Your task to perform on an android device: add a label to a message in the gmail app Image 0: 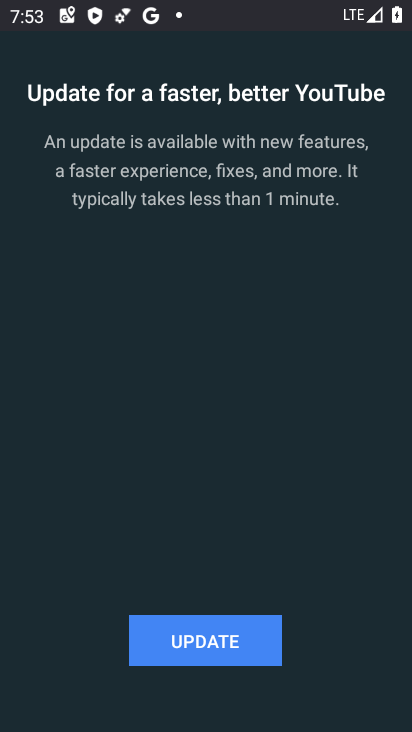
Step 0: press home button
Your task to perform on an android device: add a label to a message in the gmail app Image 1: 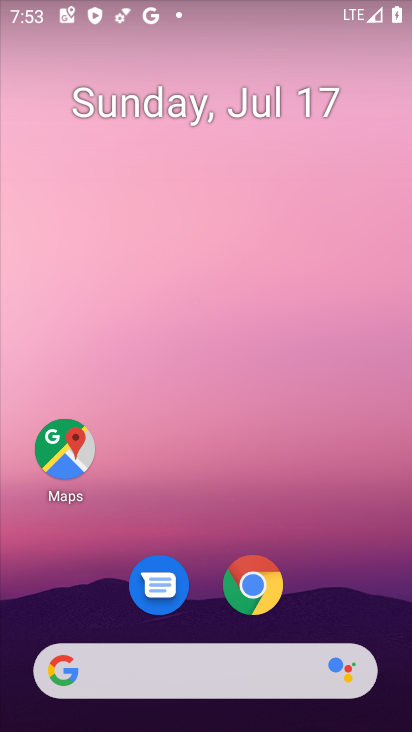
Step 1: drag from (323, 588) to (198, 40)
Your task to perform on an android device: add a label to a message in the gmail app Image 2: 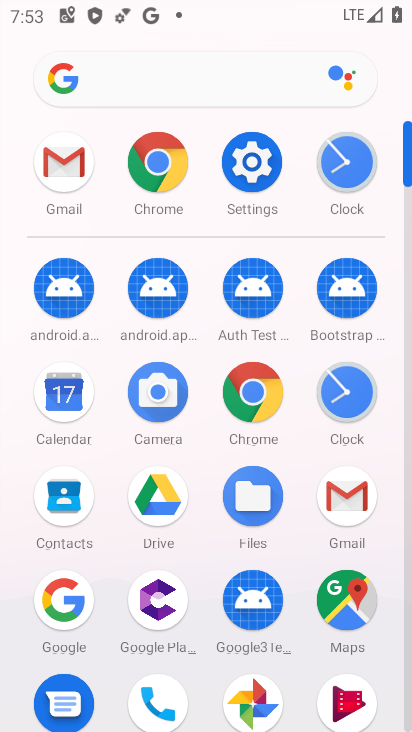
Step 2: click (76, 158)
Your task to perform on an android device: add a label to a message in the gmail app Image 3: 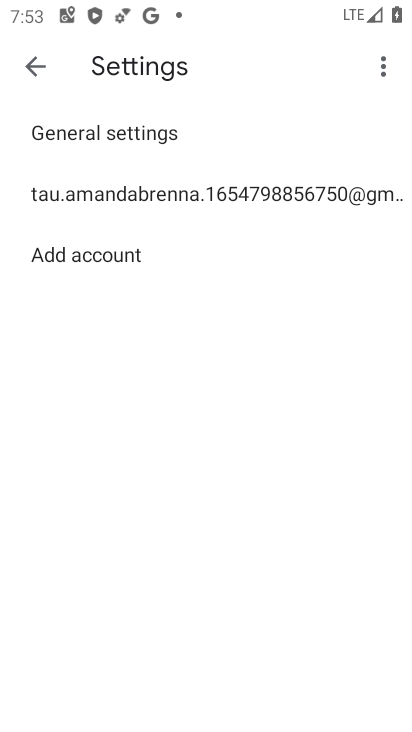
Step 3: click (37, 57)
Your task to perform on an android device: add a label to a message in the gmail app Image 4: 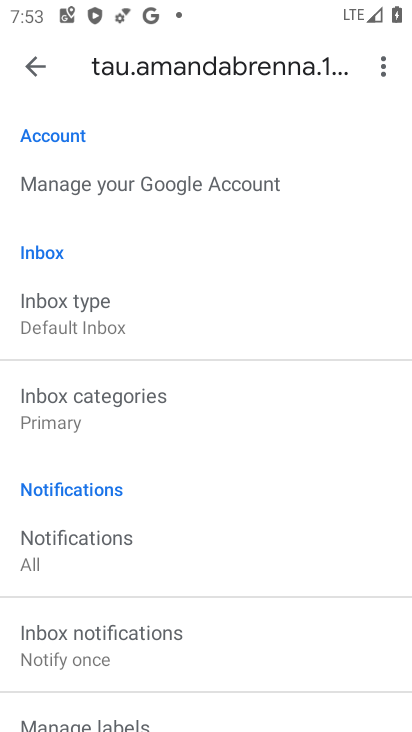
Step 4: click (37, 57)
Your task to perform on an android device: add a label to a message in the gmail app Image 5: 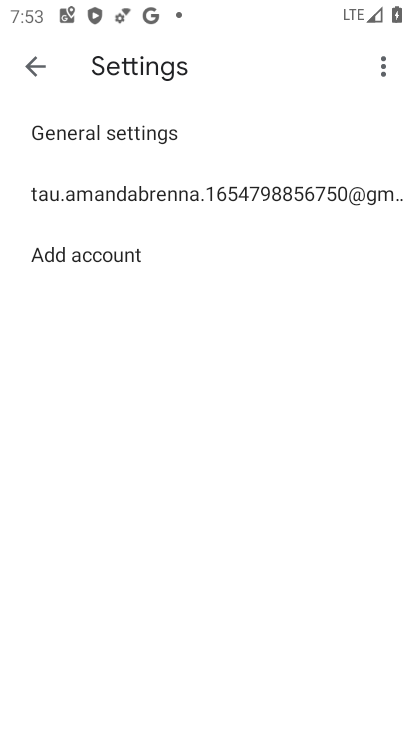
Step 5: click (32, 73)
Your task to perform on an android device: add a label to a message in the gmail app Image 6: 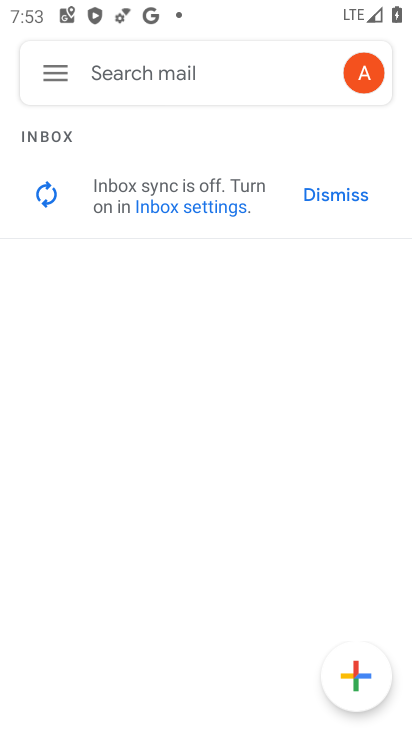
Step 6: click (48, 196)
Your task to perform on an android device: add a label to a message in the gmail app Image 7: 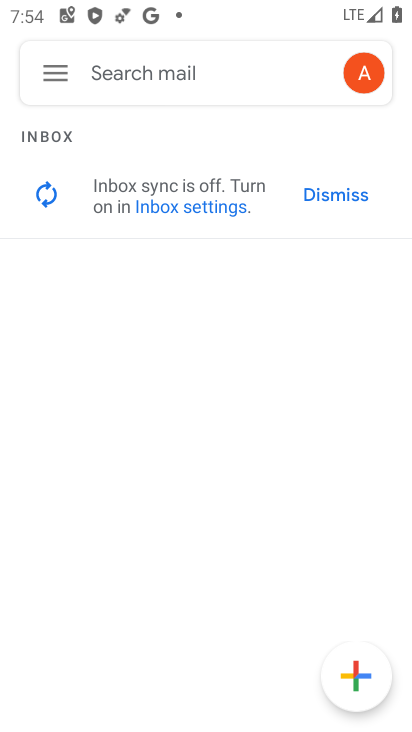
Step 7: click (48, 195)
Your task to perform on an android device: add a label to a message in the gmail app Image 8: 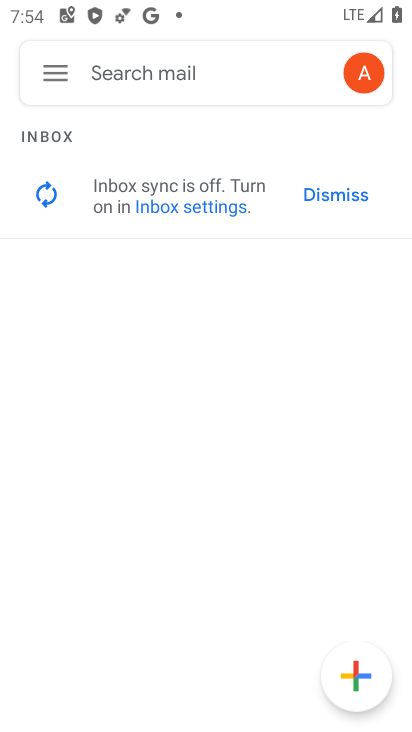
Step 8: click (59, 69)
Your task to perform on an android device: add a label to a message in the gmail app Image 9: 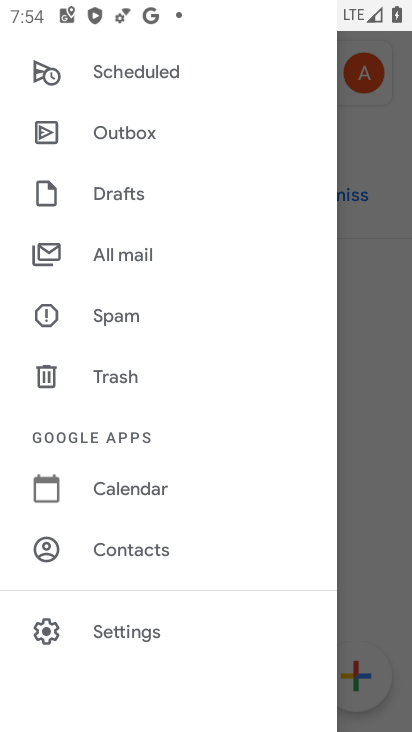
Step 9: click (122, 259)
Your task to perform on an android device: add a label to a message in the gmail app Image 10: 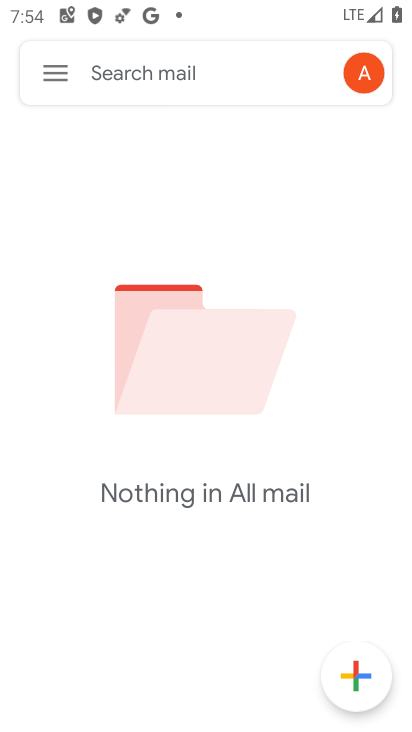
Step 10: task complete